Your task to perform on an android device: Go to display settings Image 0: 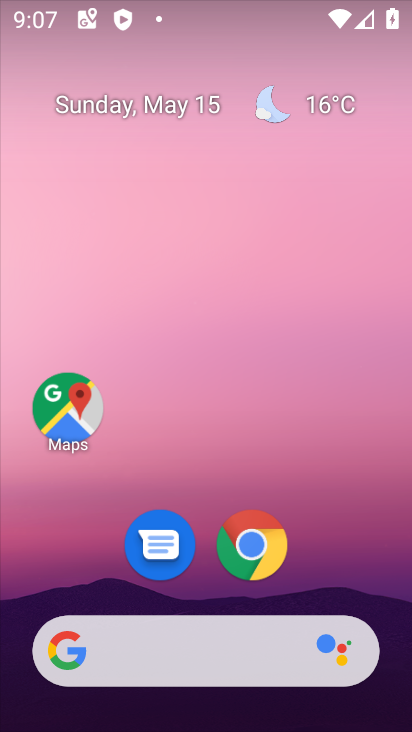
Step 0: drag from (324, 566) to (234, 157)
Your task to perform on an android device: Go to display settings Image 1: 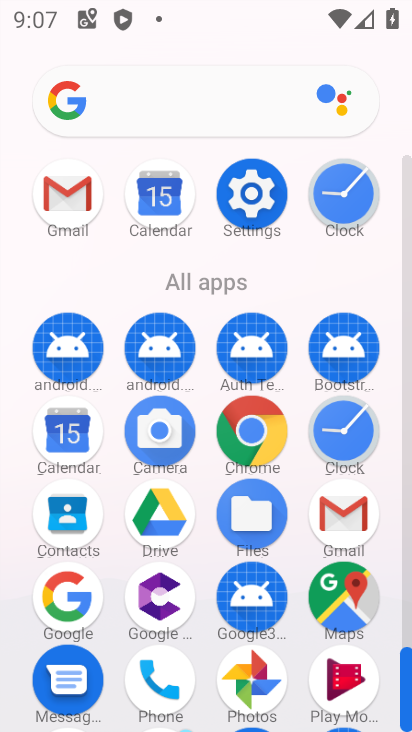
Step 1: click (251, 194)
Your task to perform on an android device: Go to display settings Image 2: 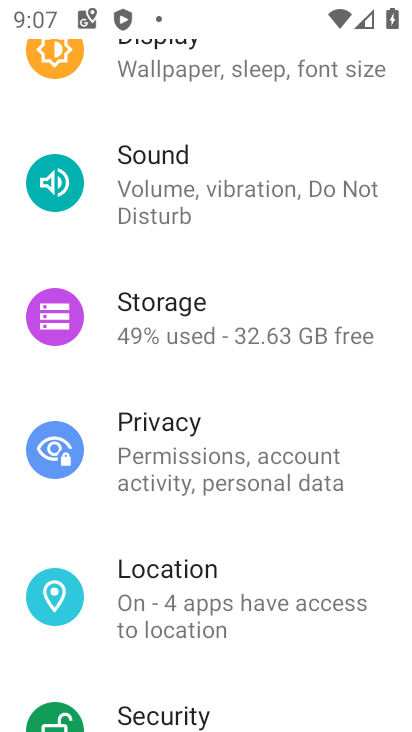
Step 2: drag from (224, 294) to (231, 415)
Your task to perform on an android device: Go to display settings Image 3: 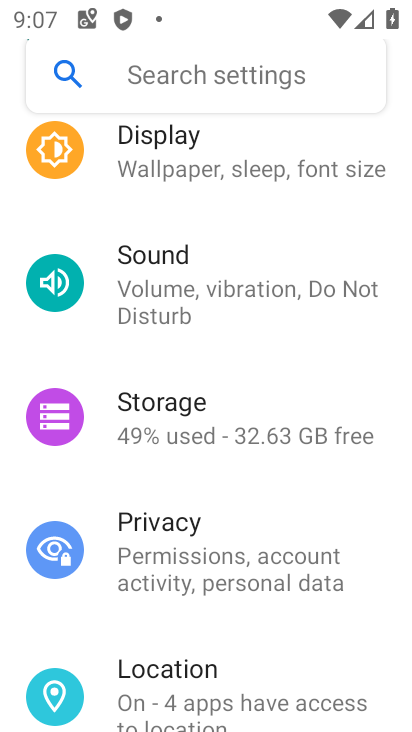
Step 3: drag from (227, 229) to (257, 463)
Your task to perform on an android device: Go to display settings Image 4: 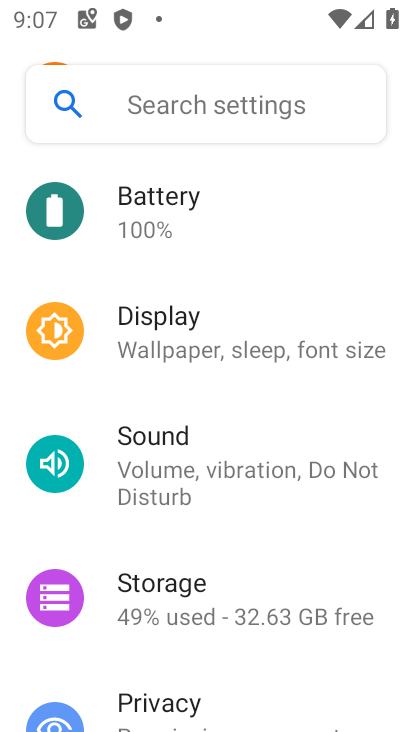
Step 4: click (163, 344)
Your task to perform on an android device: Go to display settings Image 5: 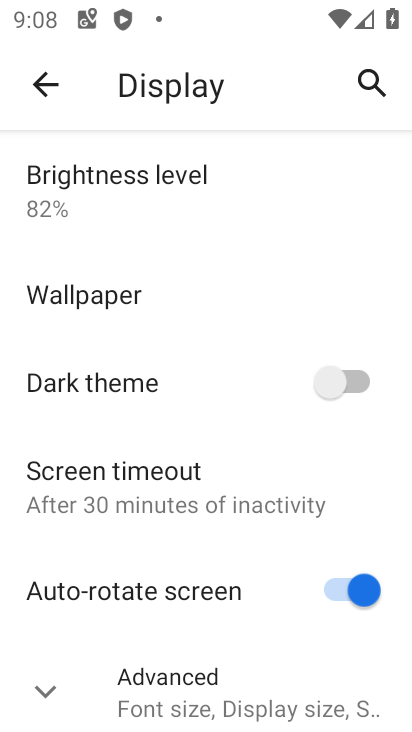
Step 5: task complete